Your task to perform on an android device: toggle improve location accuracy Image 0: 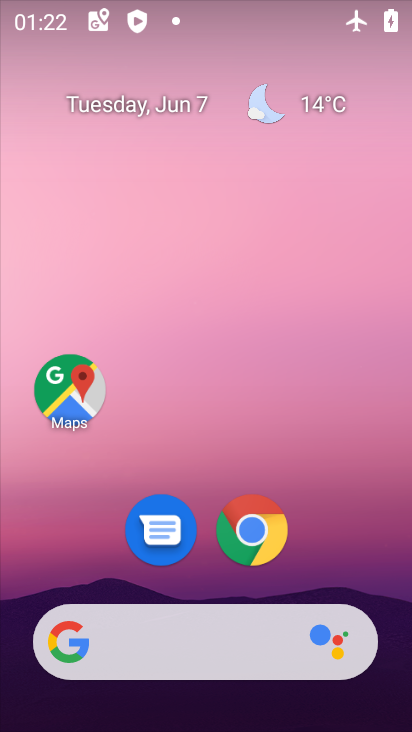
Step 0: drag from (322, 528) to (318, 137)
Your task to perform on an android device: toggle improve location accuracy Image 1: 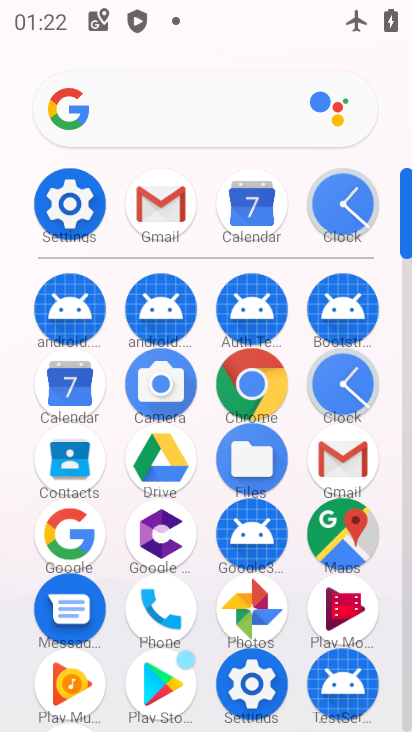
Step 1: click (85, 180)
Your task to perform on an android device: toggle improve location accuracy Image 2: 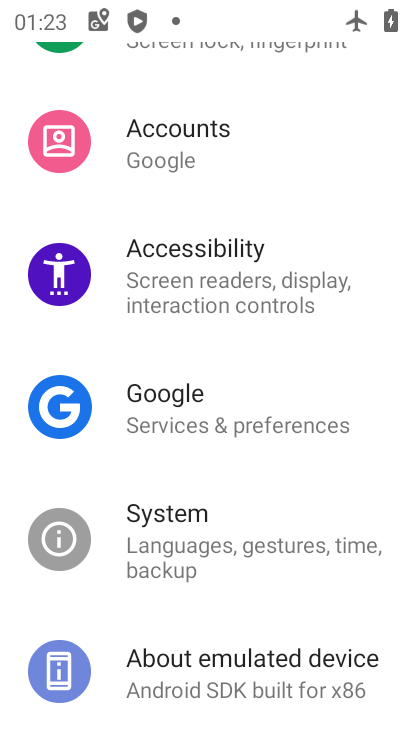
Step 2: drag from (200, 198) to (216, 509)
Your task to perform on an android device: toggle improve location accuracy Image 3: 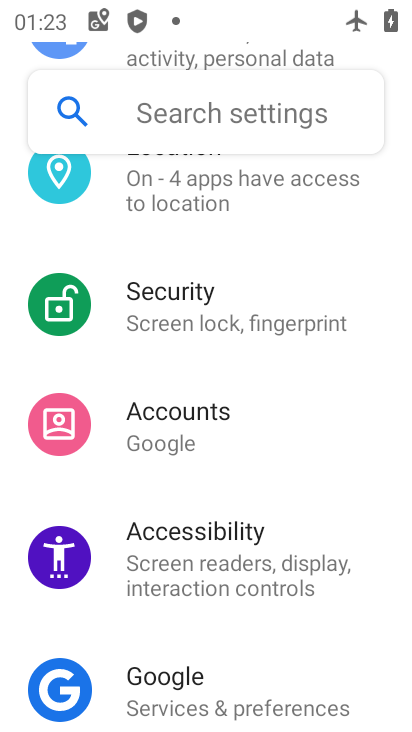
Step 3: drag from (233, 209) to (223, 571)
Your task to perform on an android device: toggle improve location accuracy Image 4: 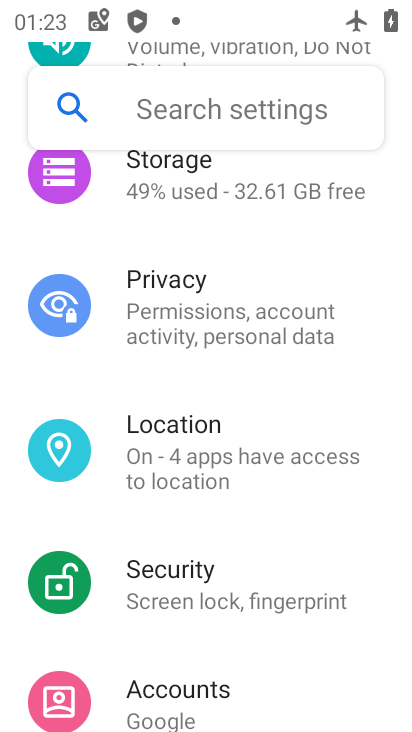
Step 4: click (177, 424)
Your task to perform on an android device: toggle improve location accuracy Image 5: 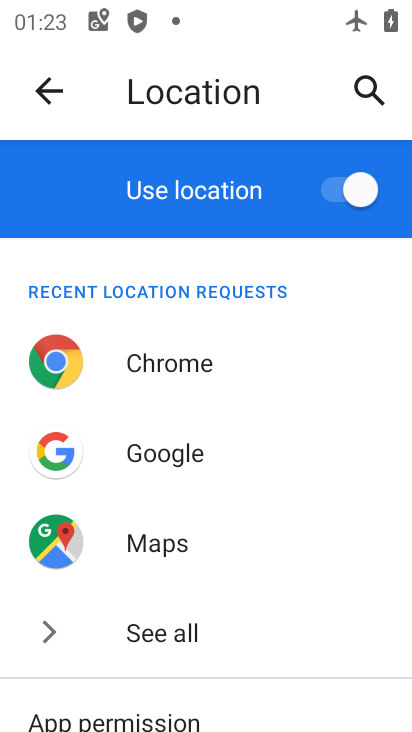
Step 5: drag from (263, 458) to (269, 288)
Your task to perform on an android device: toggle improve location accuracy Image 6: 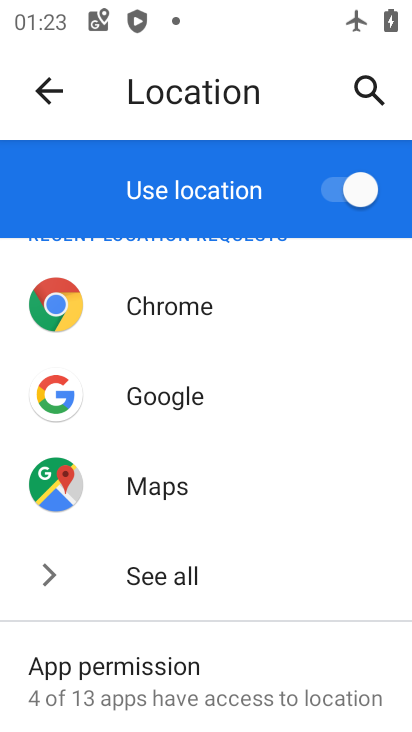
Step 6: drag from (186, 651) to (199, 285)
Your task to perform on an android device: toggle improve location accuracy Image 7: 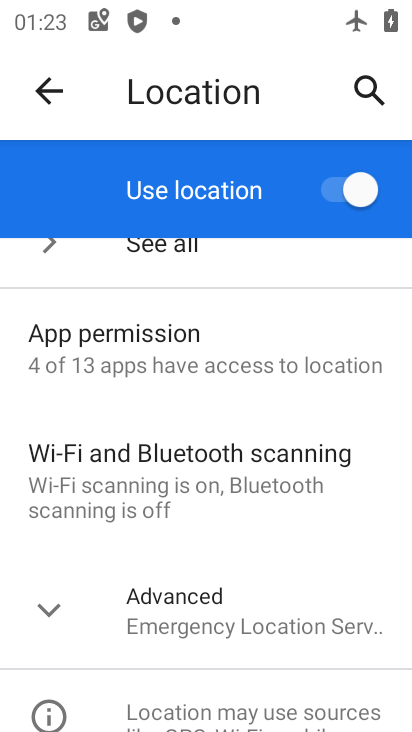
Step 7: click (212, 616)
Your task to perform on an android device: toggle improve location accuracy Image 8: 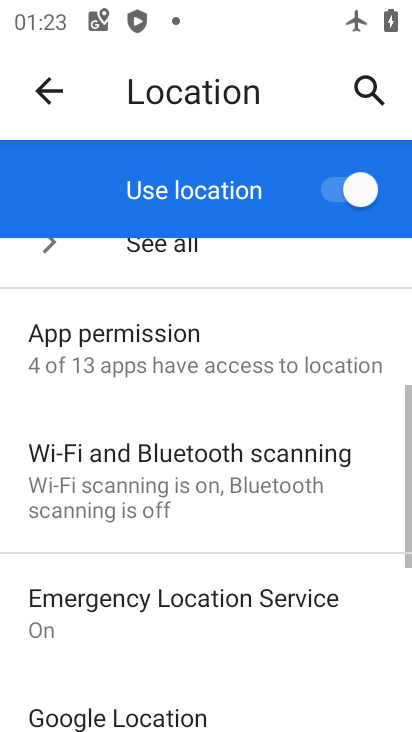
Step 8: drag from (183, 651) to (221, 320)
Your task to perform on an android device: toggle improve location accuracy Image 9: 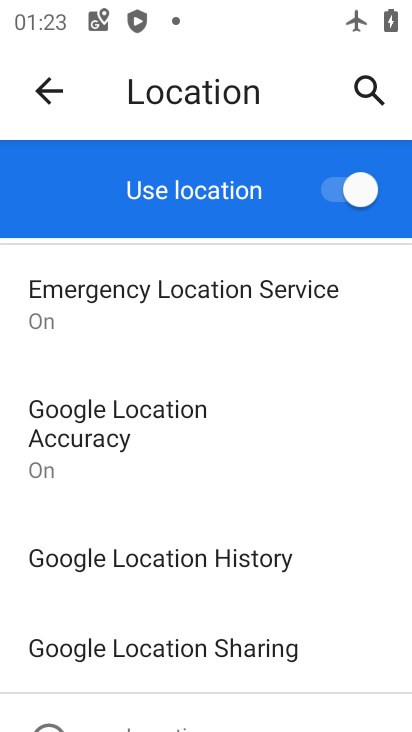
Step 9: click (128, 422)
Your task to perform on an android device: toggle improve location accuracy Image 10: 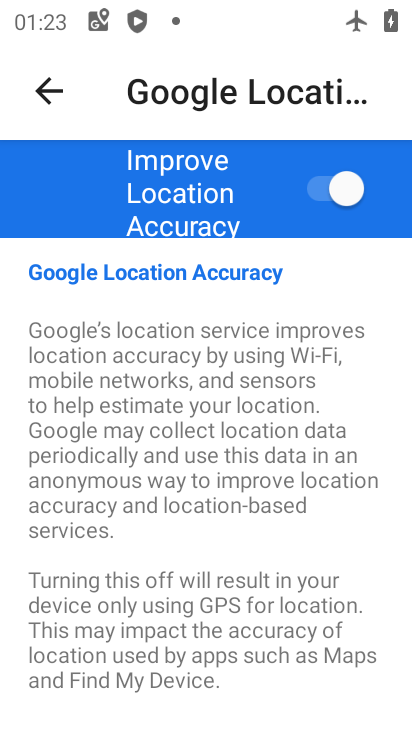
Step 10: click (355, 190)
Your task to perform on an android device: toggle improve location accuracy Image 11: 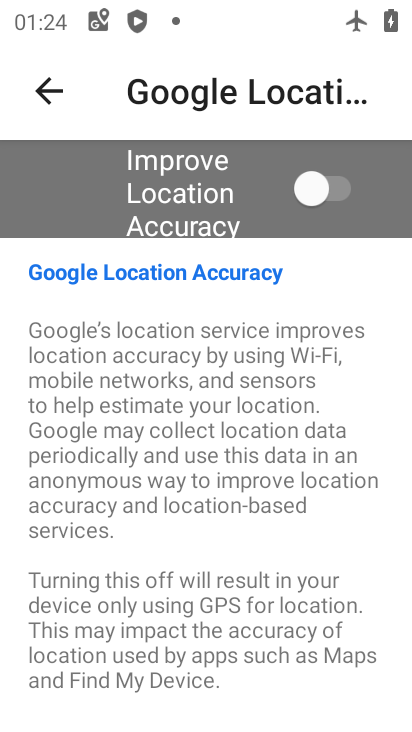
Step 11: task complete